Your task to perform on an android device: Open Google Maps and go to "Timeline" Image 0: 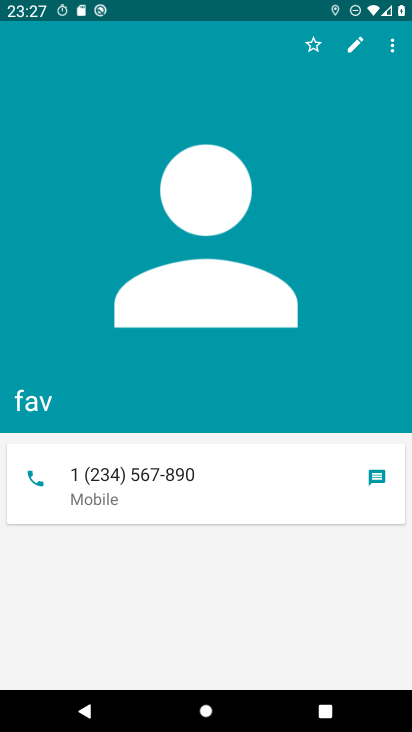
Step 0: press home button
Your task to perform on an android device: Open Google Maps and go to "Timeline" Image 1: 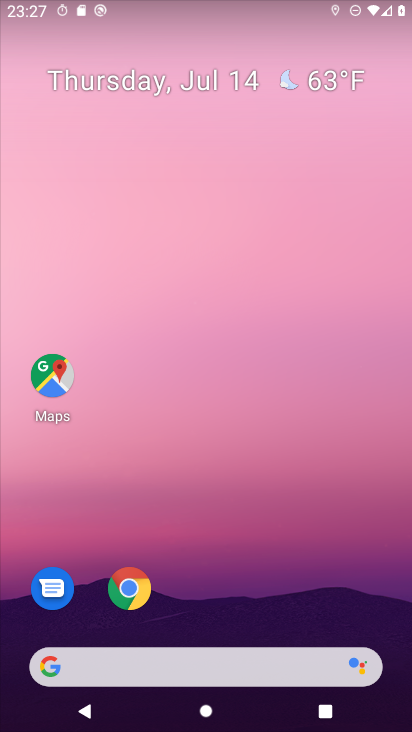
Step 1: drag from (371, 599) to (371, 84)
Your task to perform on an android device: Open Google Maps and go to "Timeline" Image 2: 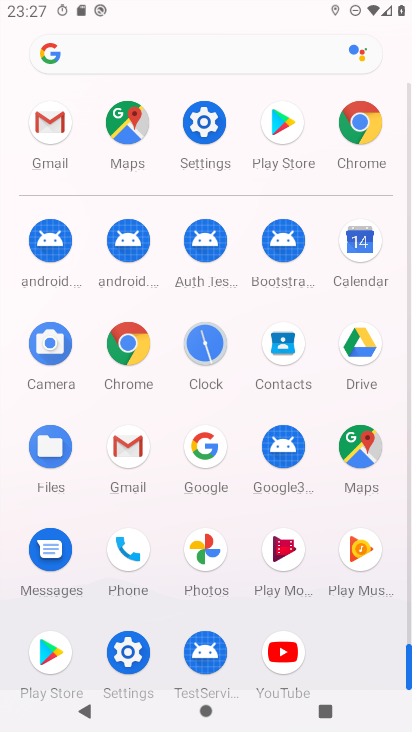
Step 2: click (354, 452)
Your task to perform on an android device: Open Google Maps and go to "Timeline" Image 3: 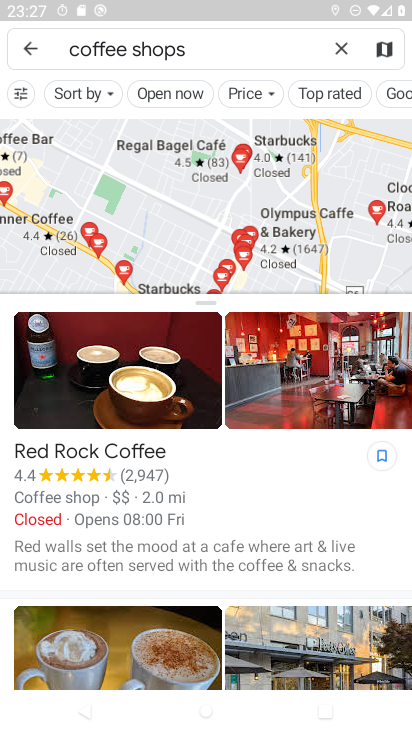
Step 3: press back button
Your task to perform on an android device: Open Google Maps and go to "Timeline" Image 4: 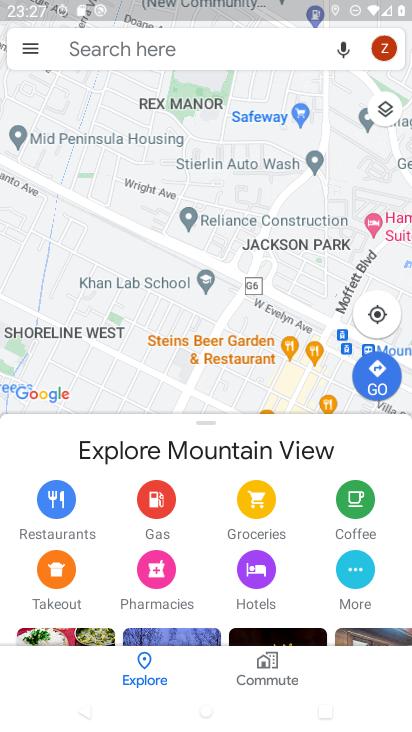
Step 4: click (39, 56)
Your task to perform on an android device: Open Google Maps and go to "Timeline" Image 5: 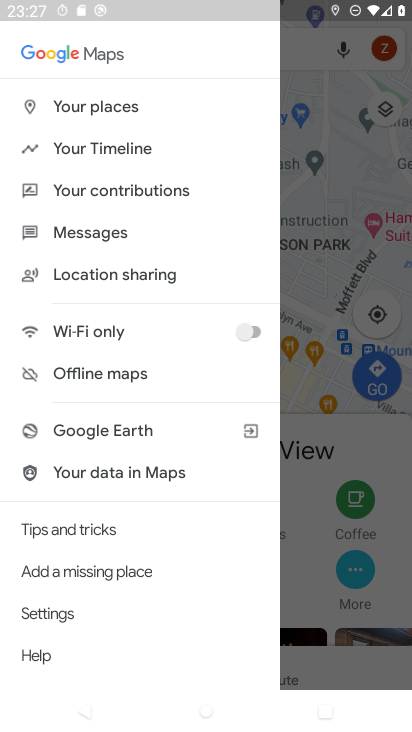
Step 5: drag from (186, 312) to (187, 389)
Your task to perform on an android device: Open Google Maps and go to "Timeline" Image 6: 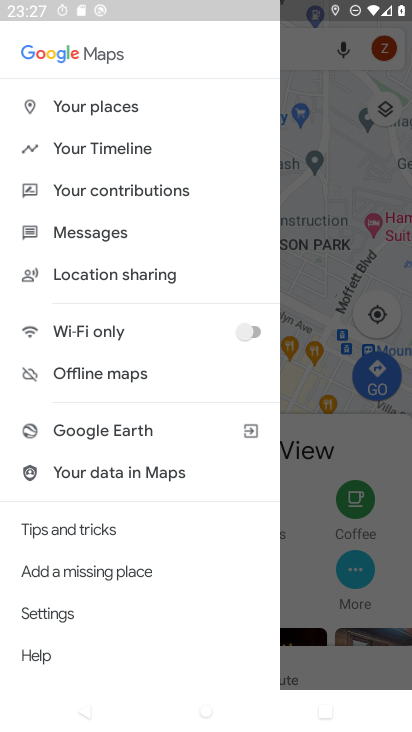
Step 6: click (156, 157)
Your task to perform on an android device: Open Google Maps and go to "Timeline" Image 7: 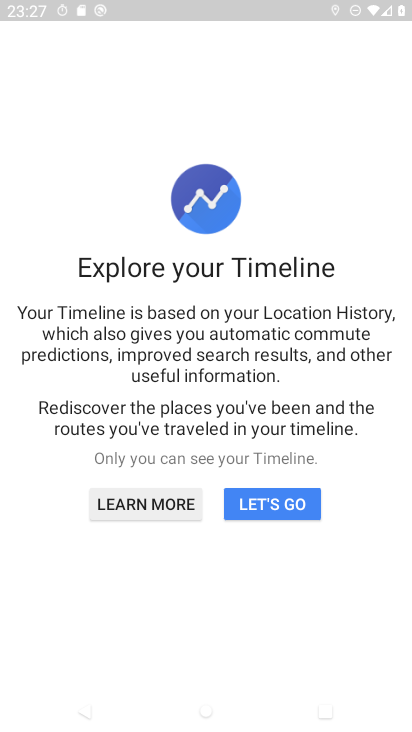
Step 7: task complete